Your task to perform on an android device: Open Yahoo.com Image 0: 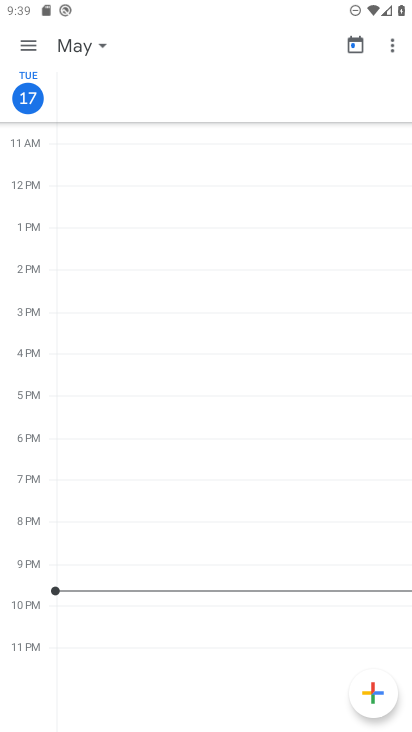
Step 0: press home button
Your task to perform on an android device: Open Yahoo.com Image 1: 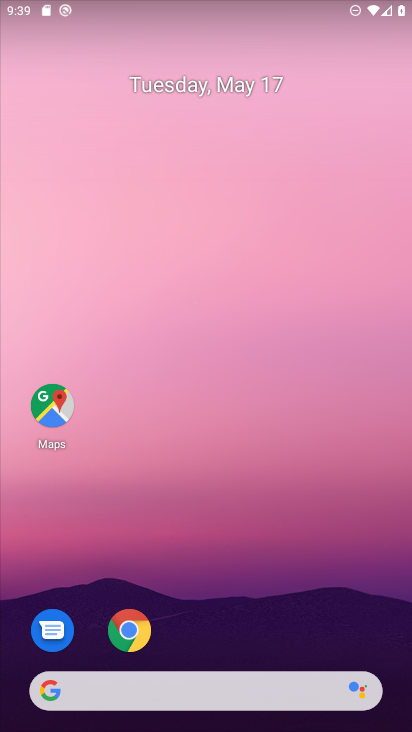
Step 1: drag from (328, 627) to (300, 219)
Your task to perform on an android device: Open Yahoo.com Image 2: 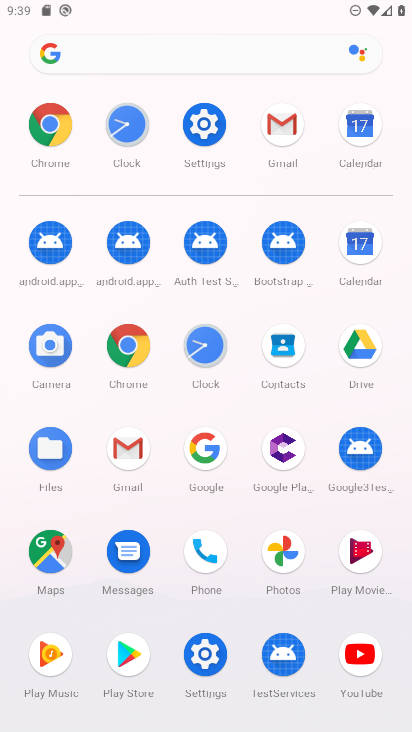
Step 2: click (130, 344)
Your task to perform on an android device: Open Yahoo.com Image 3: 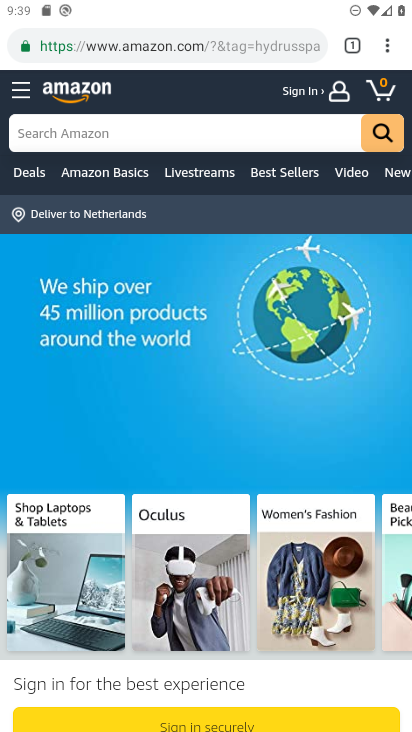
Step 3: click (230, 40)
Your task to perform on an android device: Open Yahoo.com Image 4: 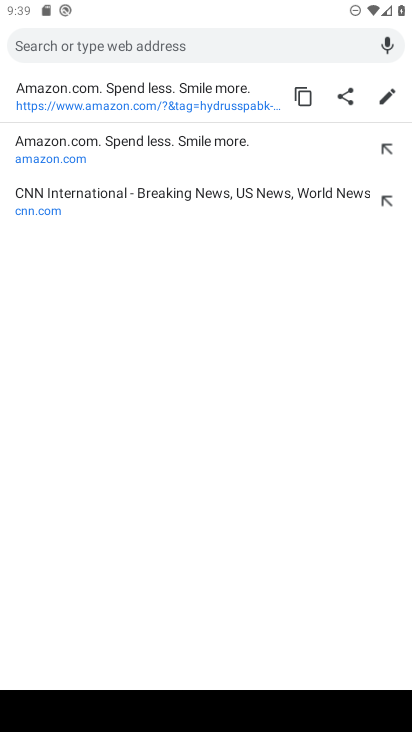
Step 4: type "yahoo,com"
Your task to perform on an android device: Open Yahoo.com Image 5: 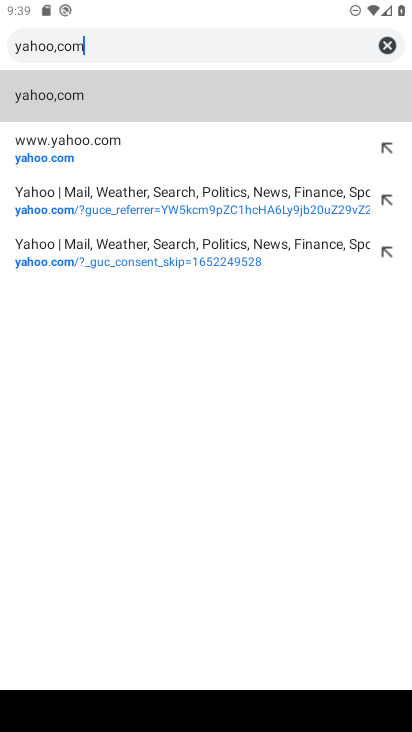
Step 5: click (84, 89)
Your task to perform on an android device: Open Yahoo.com Image 6: 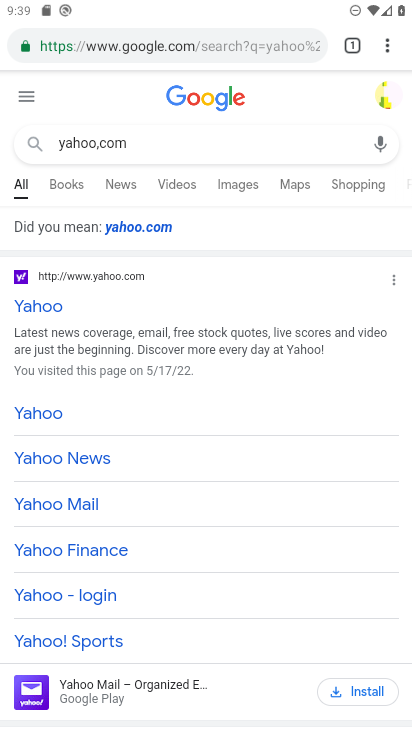
Step 6: click (57, 308)
Your task to perform on an android device: Open Yahoo.com Image 7: 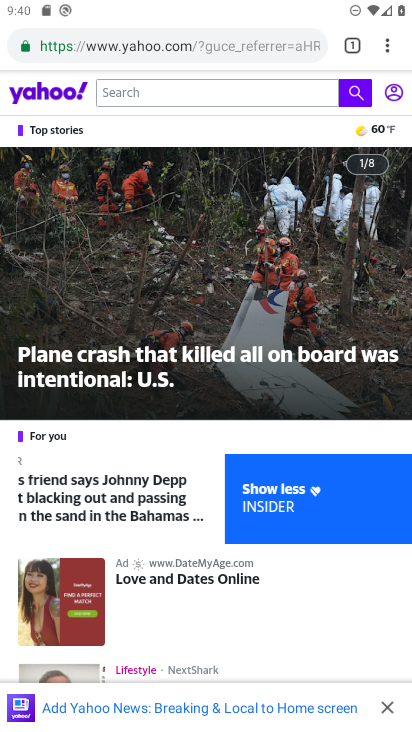
Step 7: task complete